Your task to perform on an android device: toggle data saver in the chrome app Image 0: 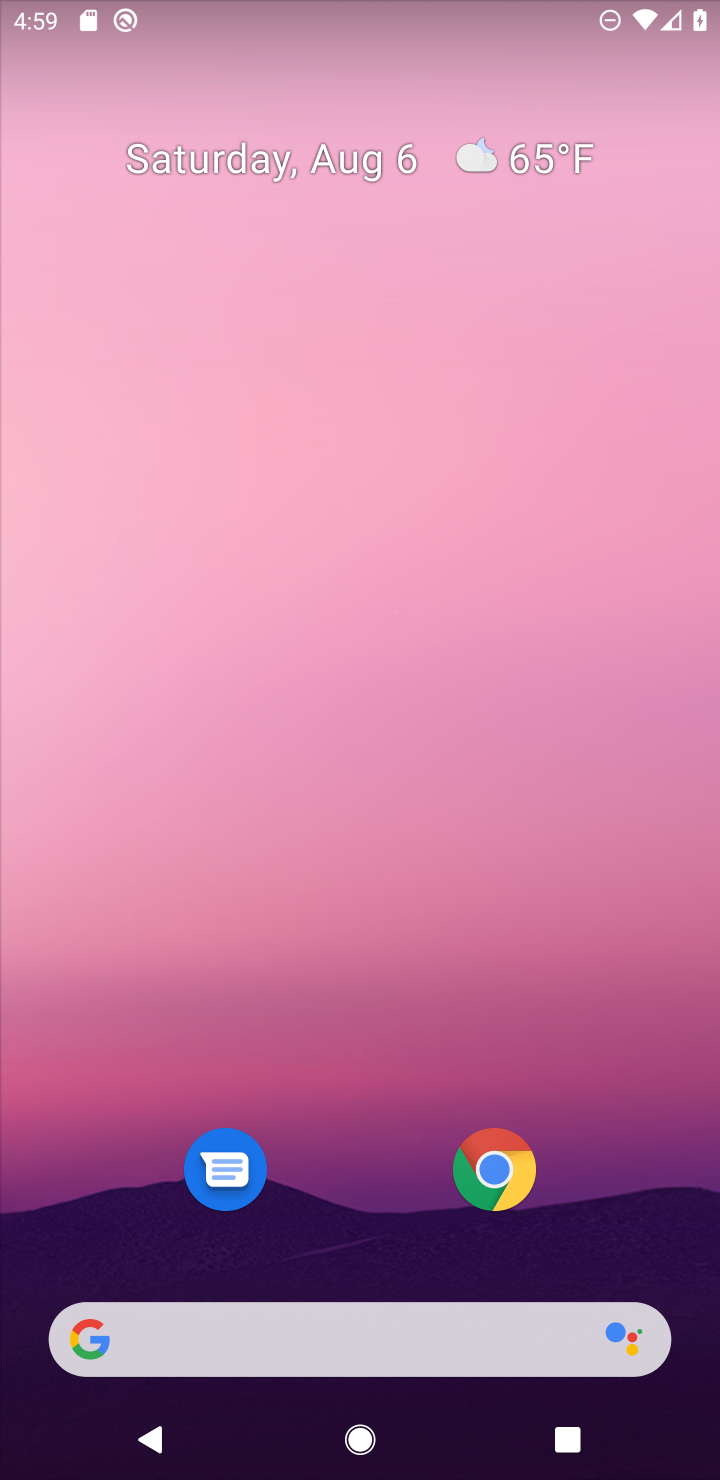
Step 0: press home button
Your task to perform on an android device: toggle data saver in the chrome app Image 1: 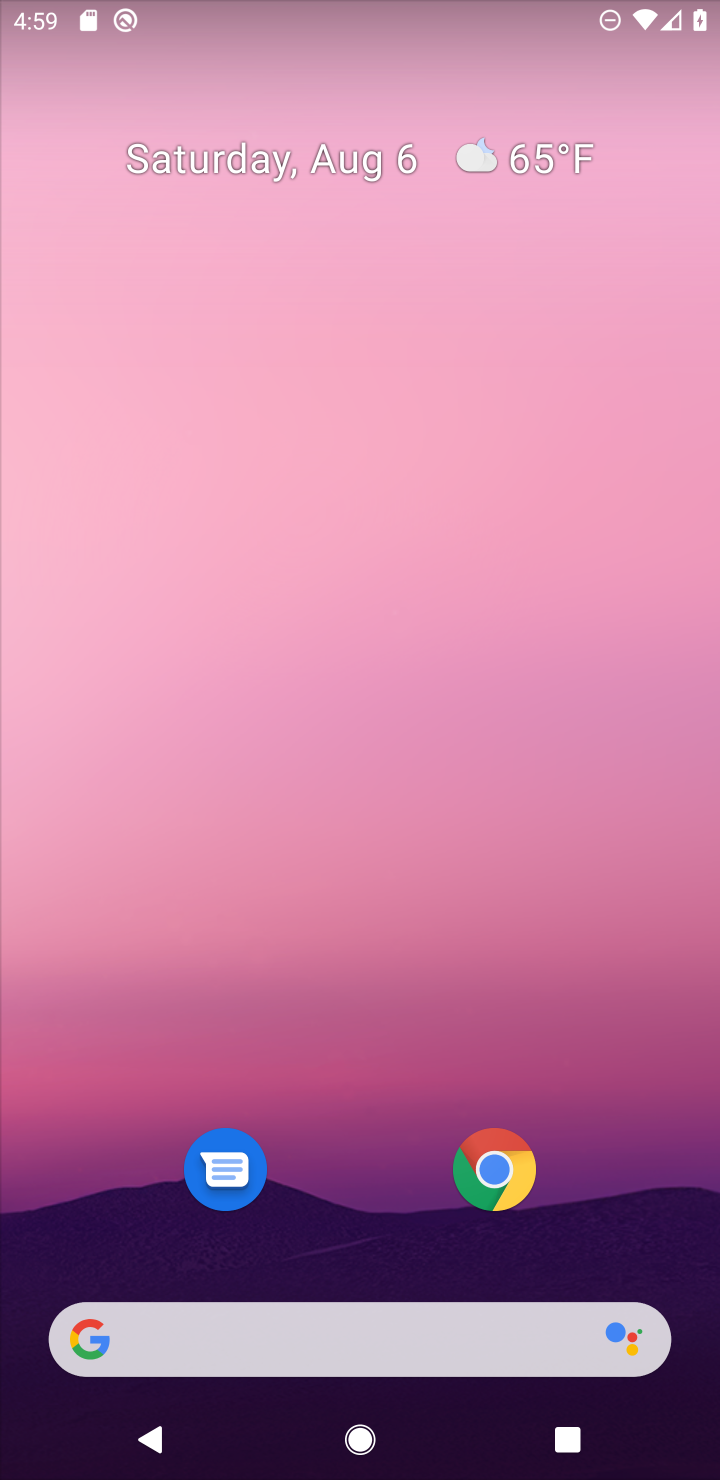
Step 1: click (488, 1172)
Your task to perform on an android device: toggle data saver in the chrome app Image 2: 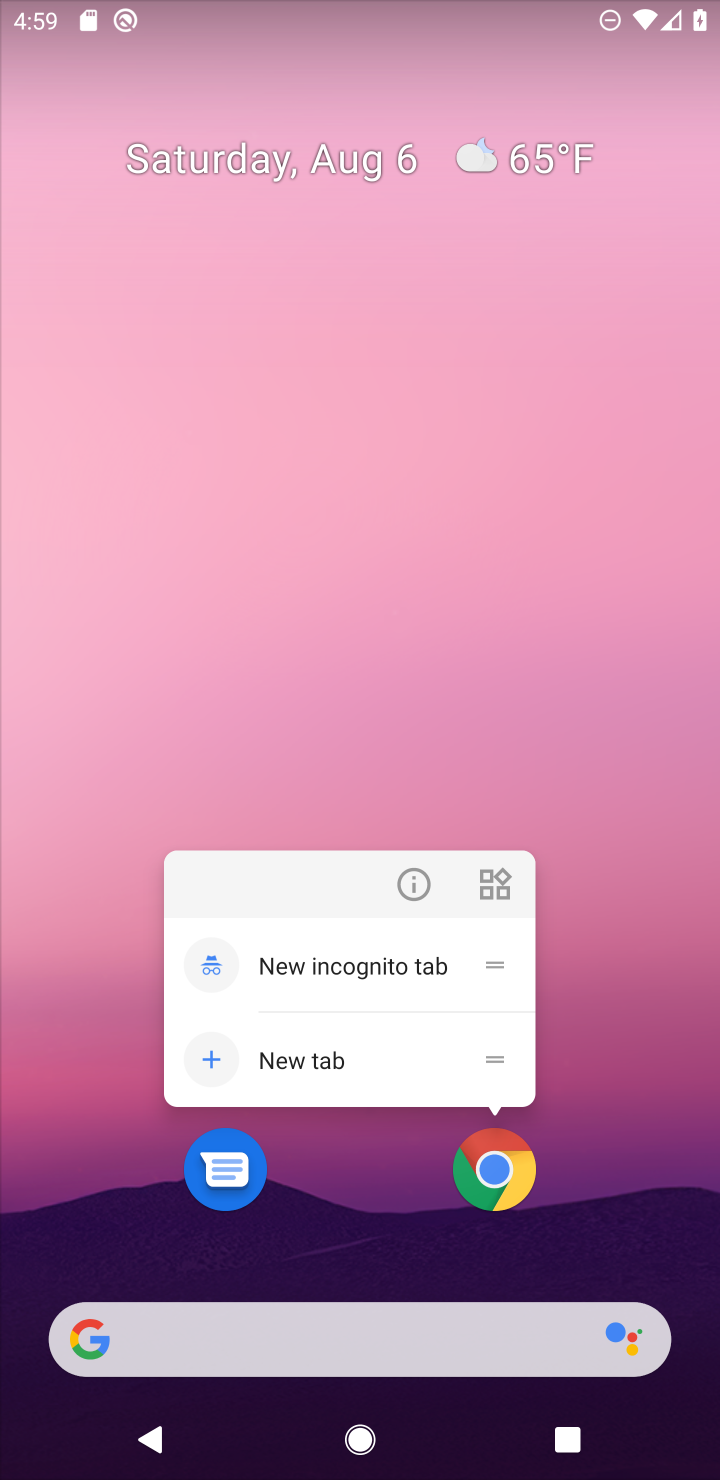
Step 2: click (488, 1172)
Your task to perform on an android device: toggle data saver in the chrome app Image 3: 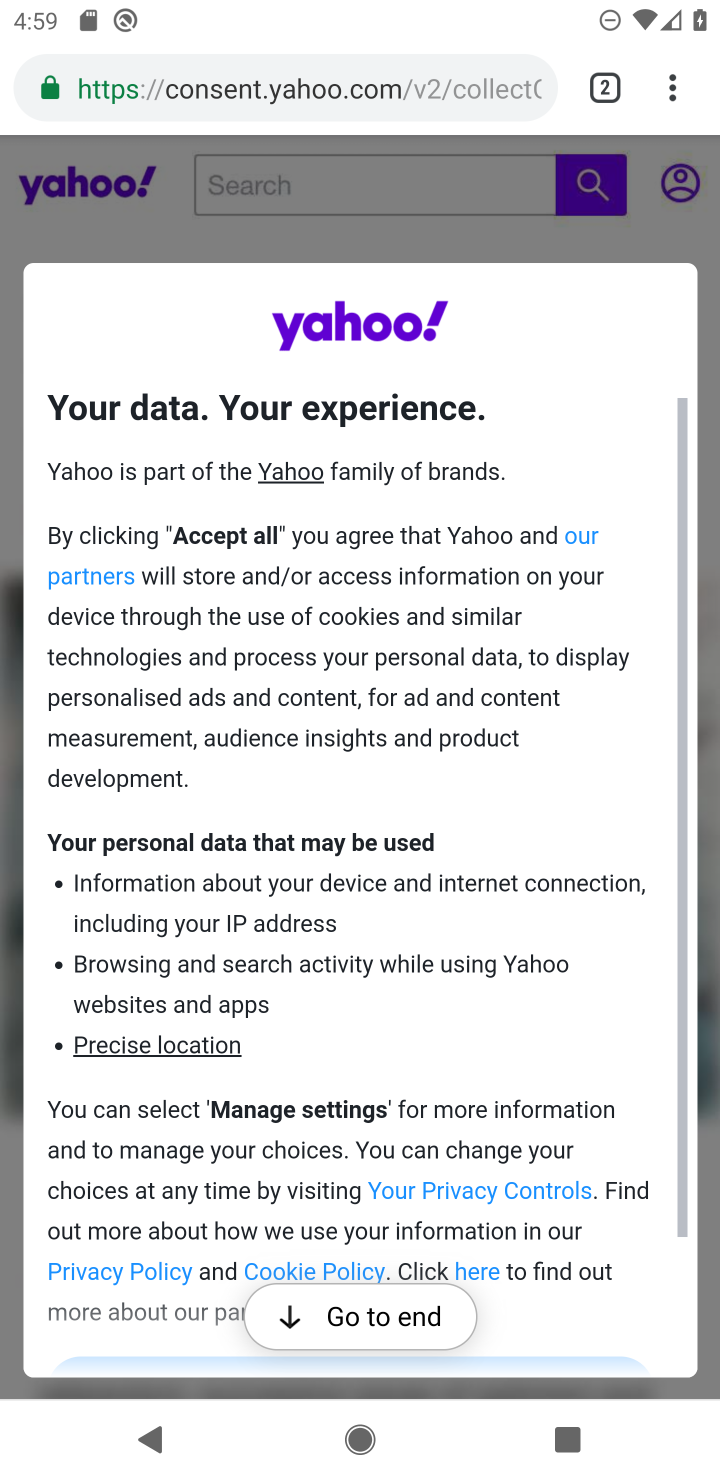
Step 3: click (684, 81)
Your task to perform on an android device: toggle data saver in the chrome app Image 4: 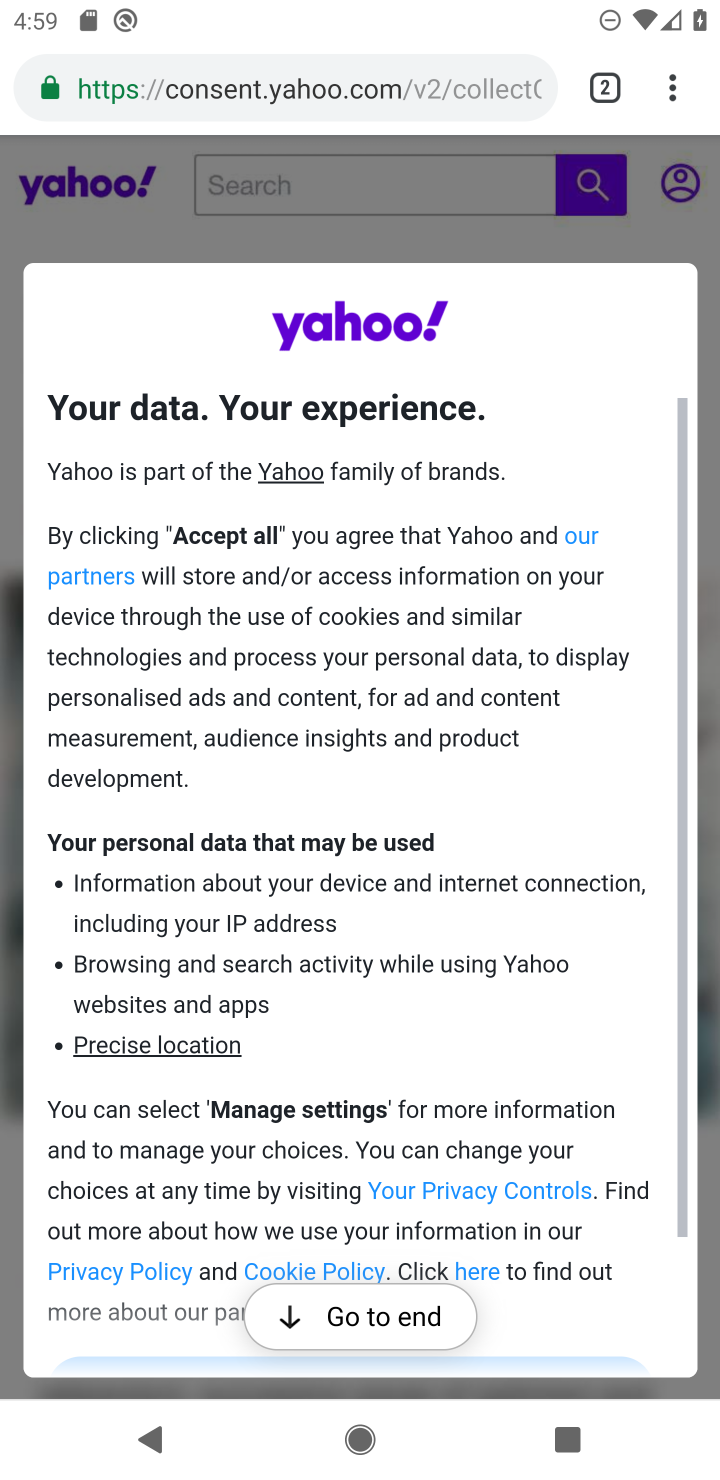
Step 4: click (660, 96)
Your task to perform on an android device: toggle data saver in the chrome app Image 5: 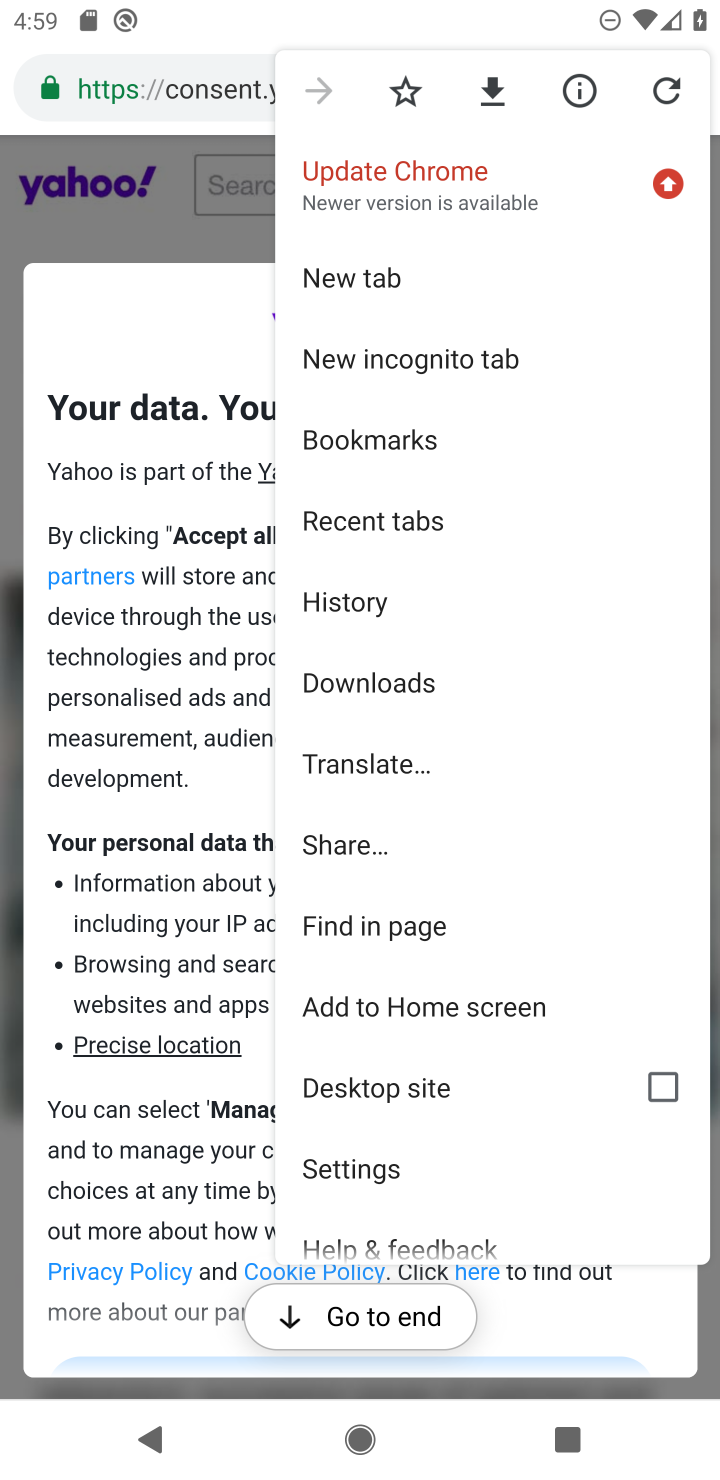
Step 5: click (398, 1165)
Your task to perform on an android device: toggle data saver in the chrome app Image 6: 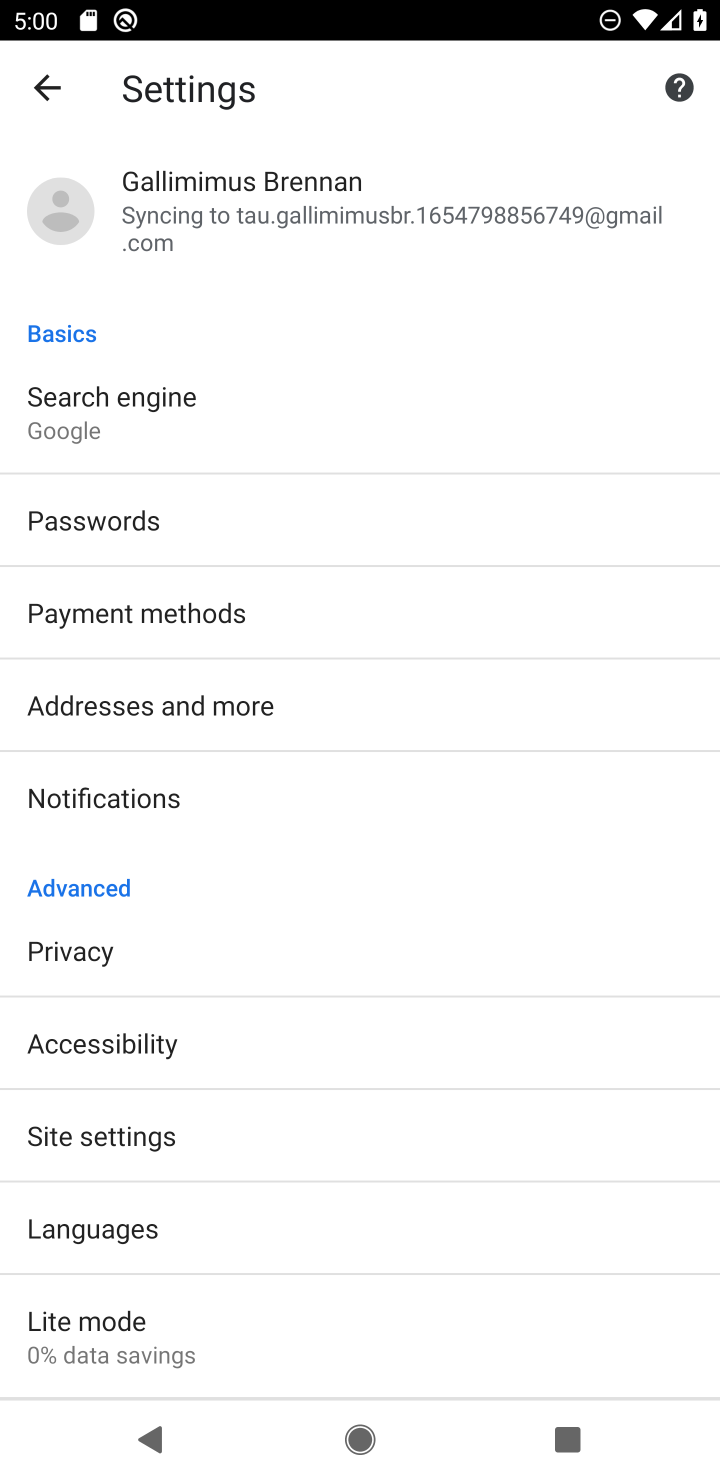
Step 6: click (192, 1328)
Your task to perform on an android device: toggle data saver in the chrome app Image 7: 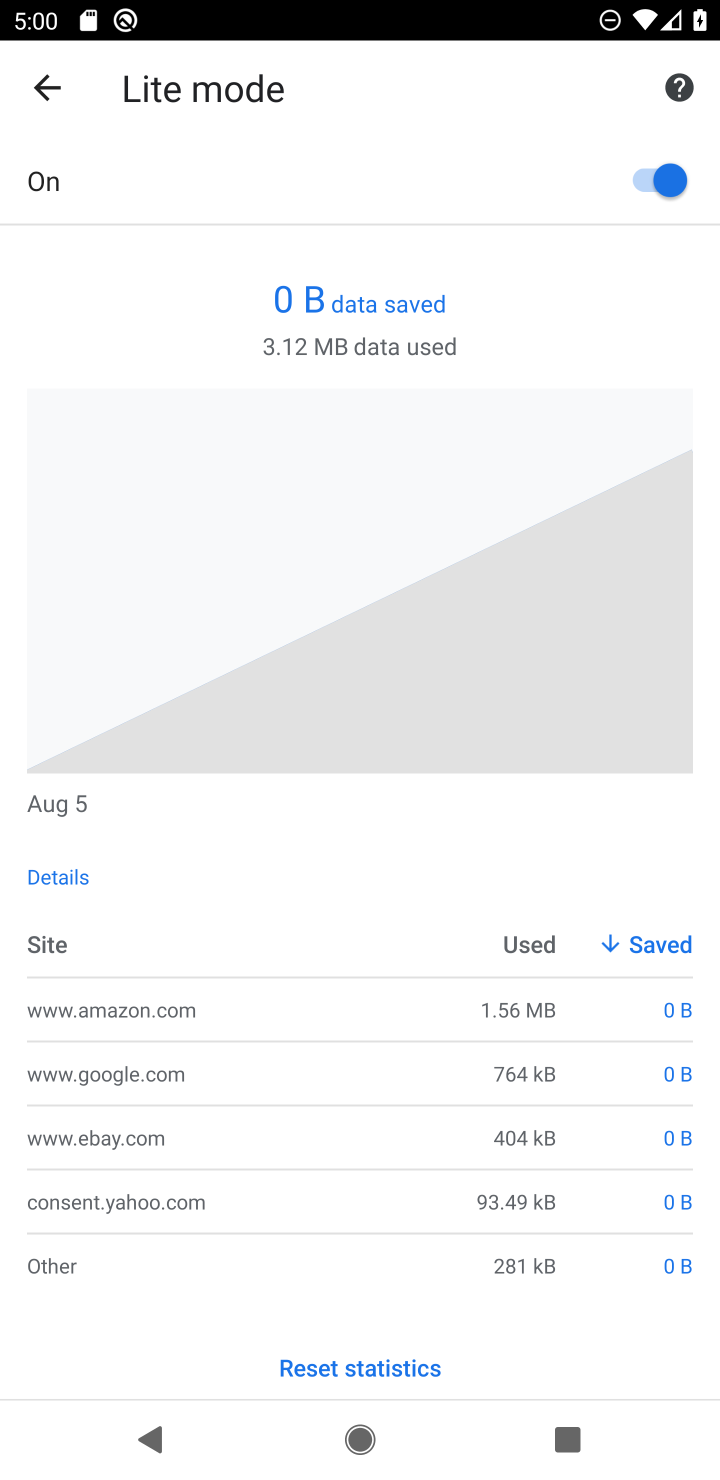
Step 7: click (662, 165)
Your task to perform on an android device: toggle data saver in the chrome app Image 8: 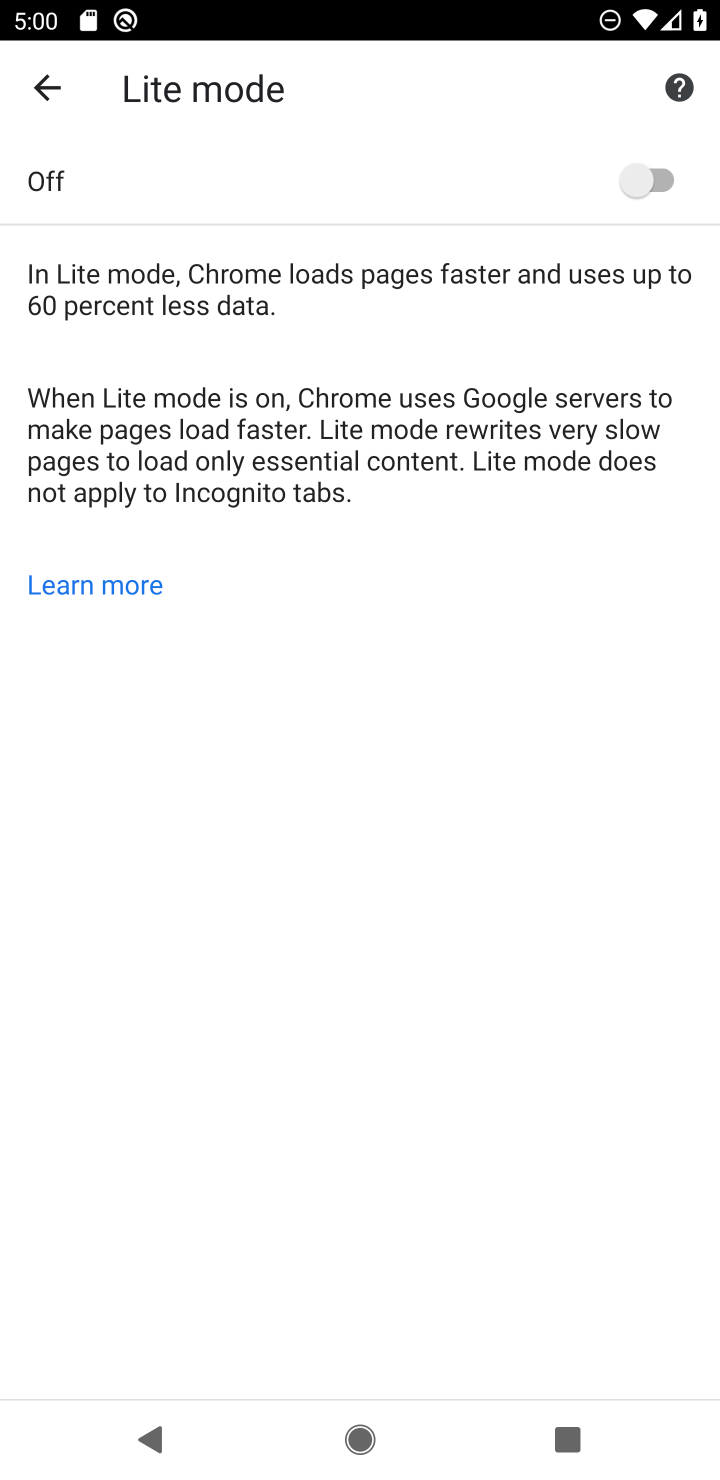
Step 8: task complete